Your task to perform on an android device: turn on javascript in the chrome app Image 0: 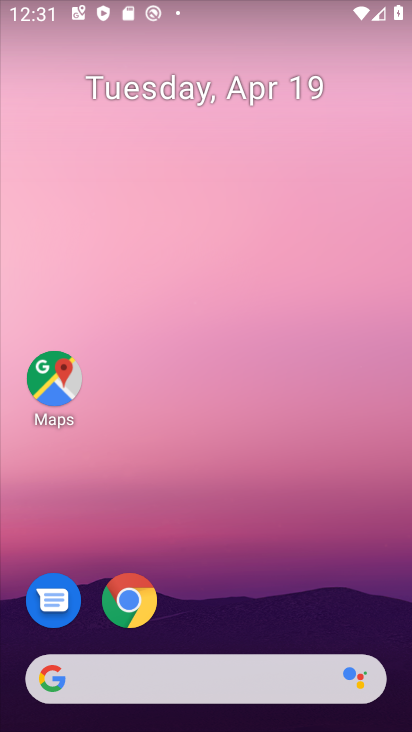
Step 0: drag from (353, 568) to (374, 145)
Your task to perform on an android device: turn on javascript in the chrome app Image 1: 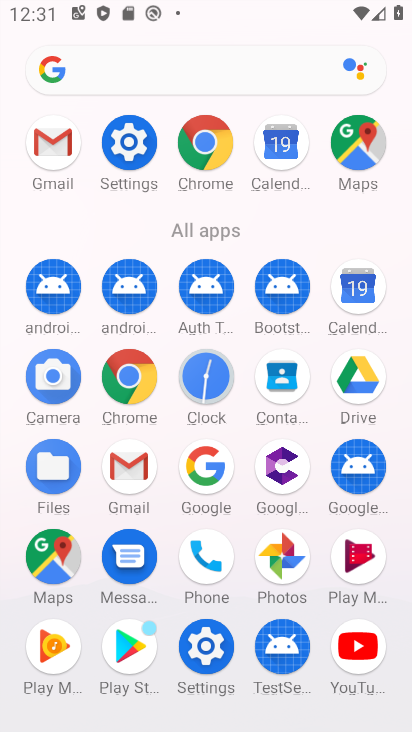
Step 1: click (196, 162)
Your task to perform on an android device: turn on javascript in the chrome app Image 2: 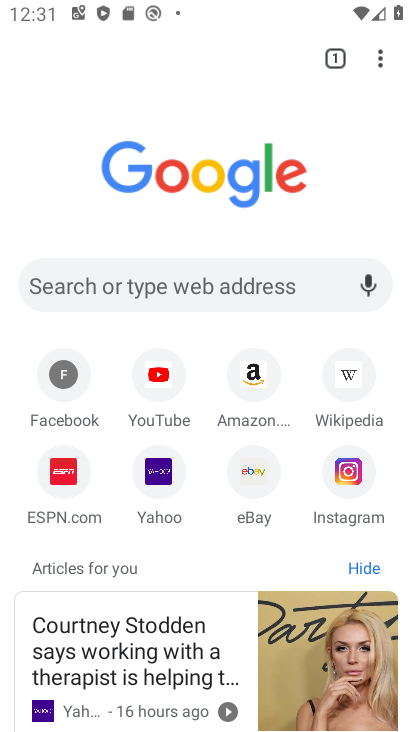
Step 2: drag from (382, 58) to (193, 547)
Your task to perform on an android device: turn on javascript in the chrome app Image 3: 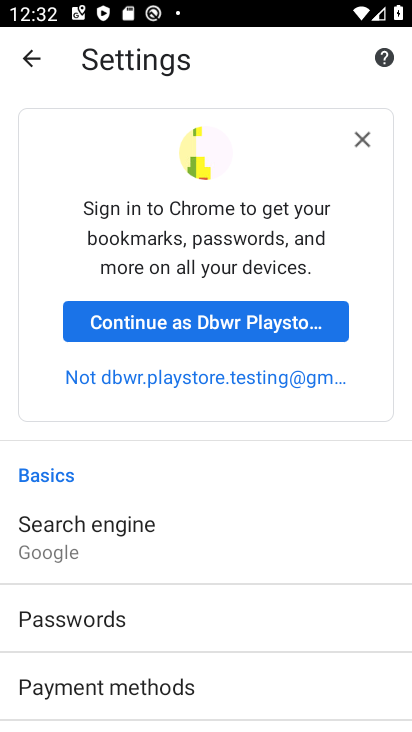
Step 3: drag from (208, 603) to (192, 231)
Your task to perform on an android device: turn on javascript in the chrome app Image 4: 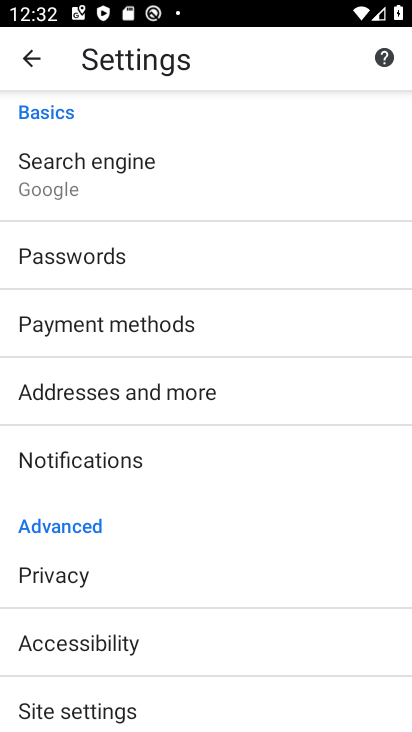
Step 4: drag from (168, 545) to (140, 260)
Your task to perform on an android device: turn on javascript in the chrome app Image 5: 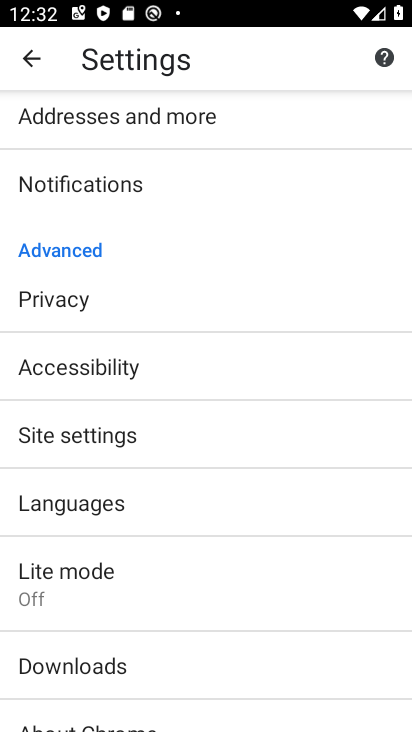
Step 5: click (86, 437)
Your task to perform on an android device: turn on javascript in the chrome app Image 6: 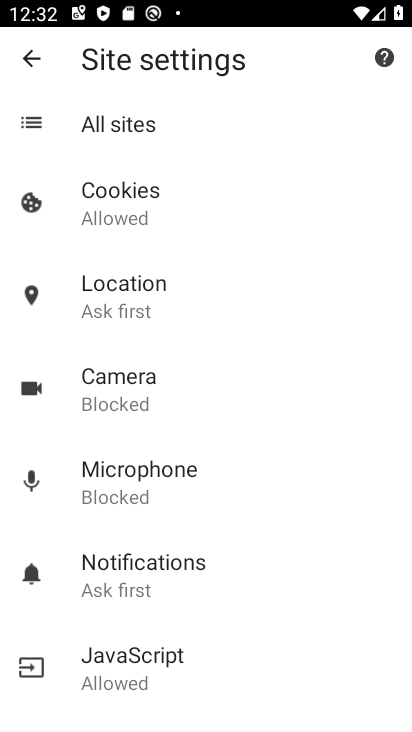
Step 6: click (171, 674)
Your task to perform on an android device: turn on javascript in the chrome app Image 7: 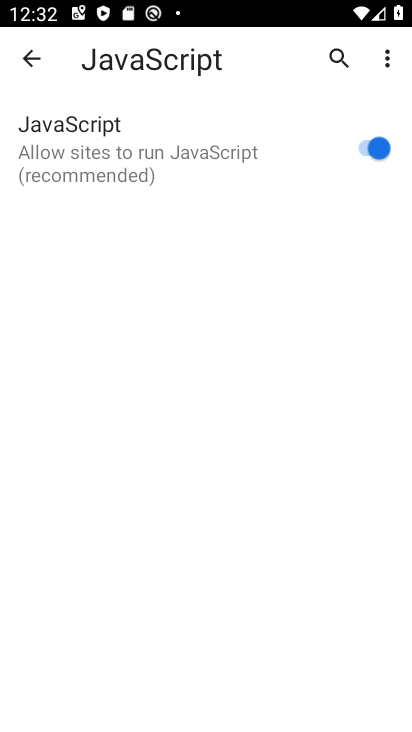
Step 7: task complete